Your task to perform on an android device: Go to location settings Image 0: 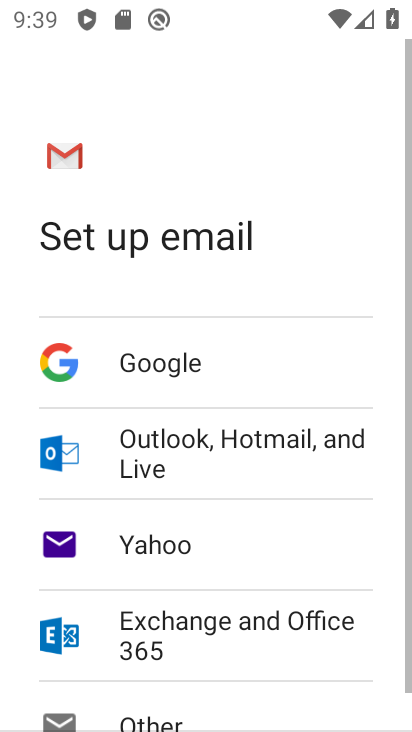
Step 0: press home button
Your task to perform on an android device: Go to location settings Image 1: 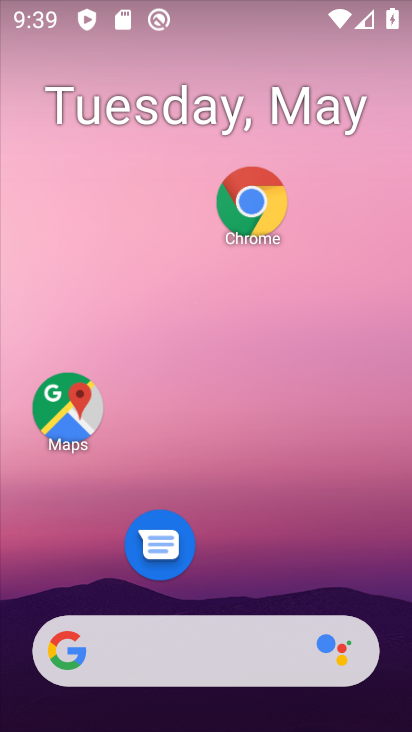
Step 1: drag from (388, 587) to (325, 192)
Your task to perform on an android device: Go to location settings Image 2: 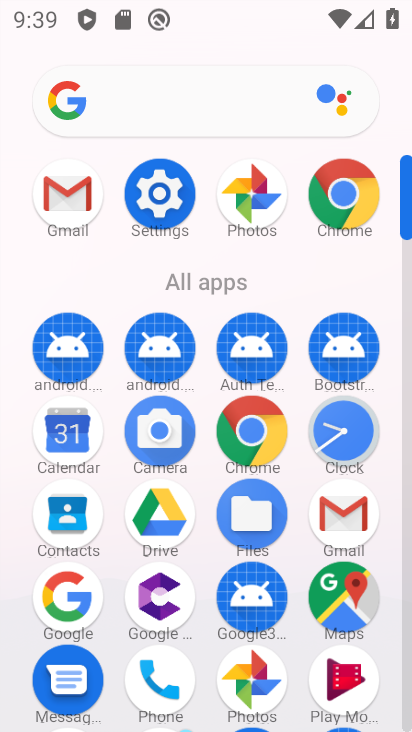
Step 2: click (168, 176)
Your task to perform on an android device: Go to location settings Image 3: 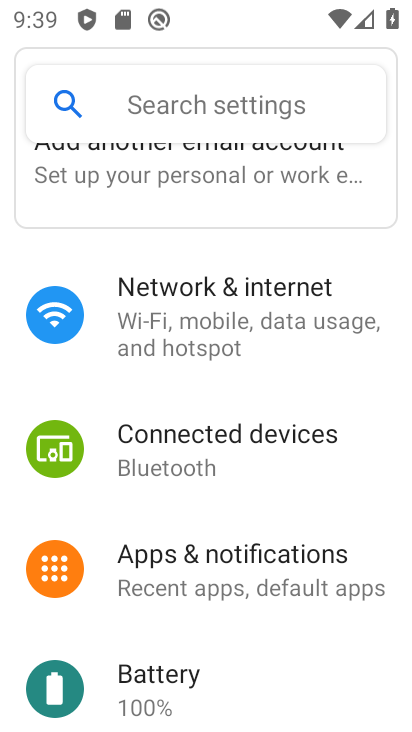
Step 3: drag from (245, 703) to (228, 171)
Your task to perform on an android device: Go to location settings Image 4: 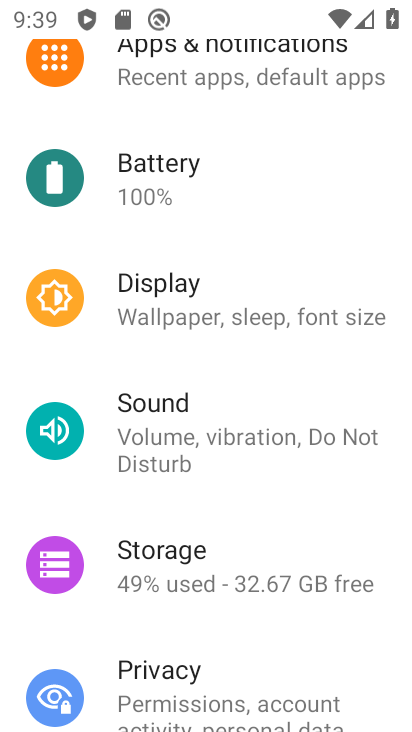
Step 4: drag from (277, 620) to (243, 182)
Your task to perform on an android device: Go to location settings Image 5: 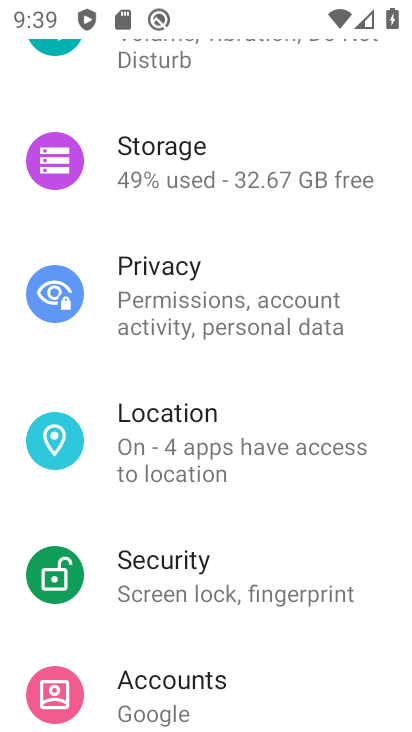
Step 5: click (229, 416)
Your task to perform on an android device: Go to location settings Image 6: 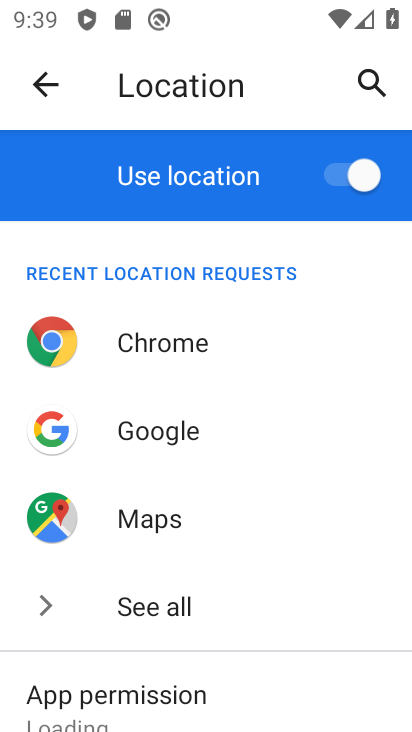
Step 6: task complete